Your task to perform on an android device: change the clock display to show seconds Image 0: 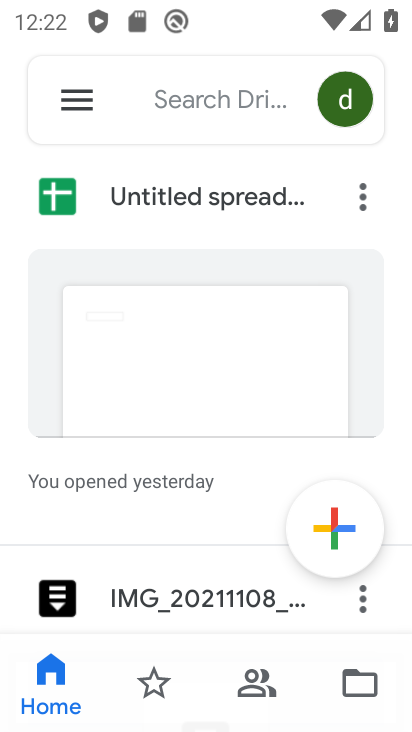
Step 0: press home button
Your task to perform on an android device: change the clock display to show seconds Image 1: 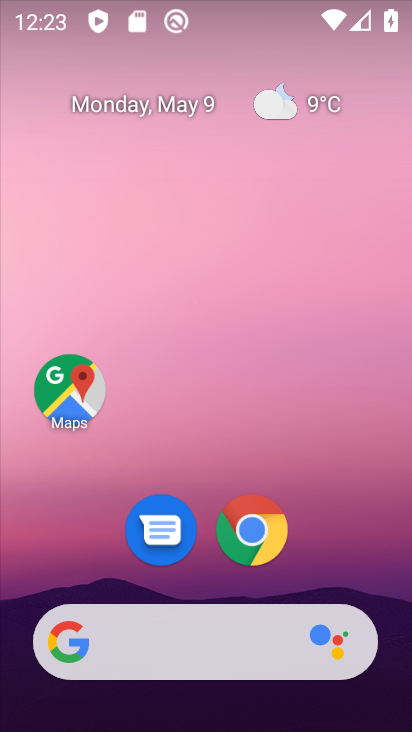
Step 1: drag from (334, 539) to (312, 221)
Your task to perform on an android device: change the clock display to show seconds Image 2: 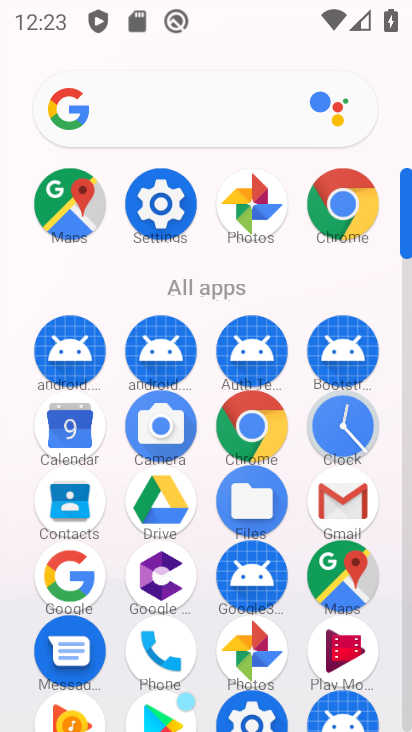
Step 2: click (337, 409)
Your task to perform on an android device: change the clock display to show seconds Image 3: 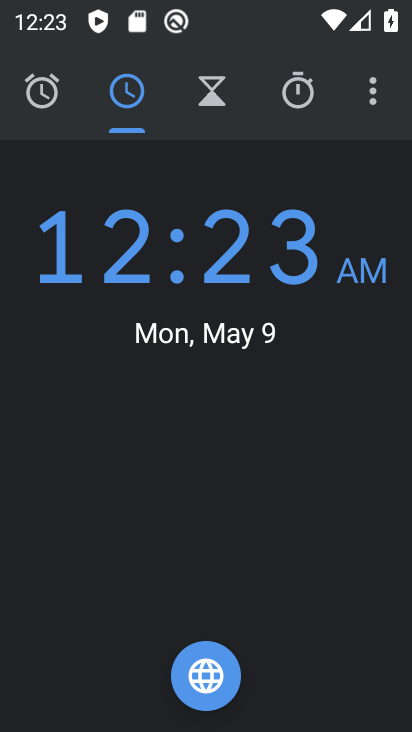
Step 3: click (365, 83)
Your task to perform on an android device: change the clock display to show seconds Image 4: 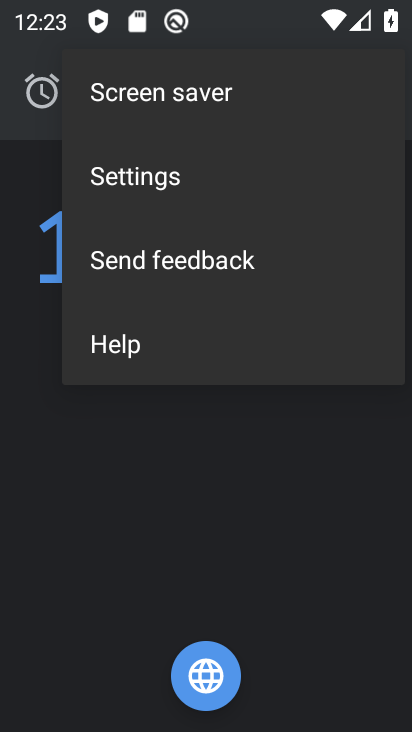
Step 4: click (208, 160)
Your task to perform on an android device: change the clock display to show seconds Image 5: 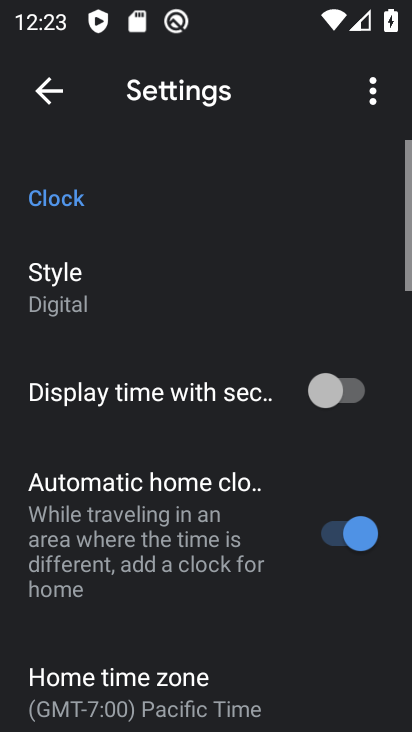
Step 5: click (337, 388)
Your task to perform on an android device: change the clock display to show seconds Image 6: 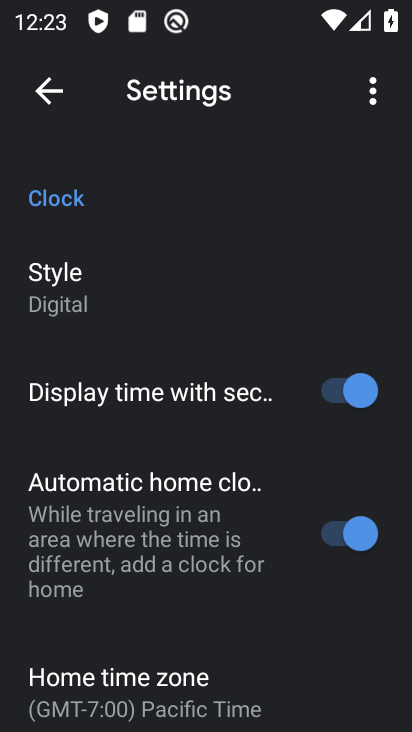
Step 6: task complete